Your task to perform on an android device: find which apps use the phone's location Image 0: 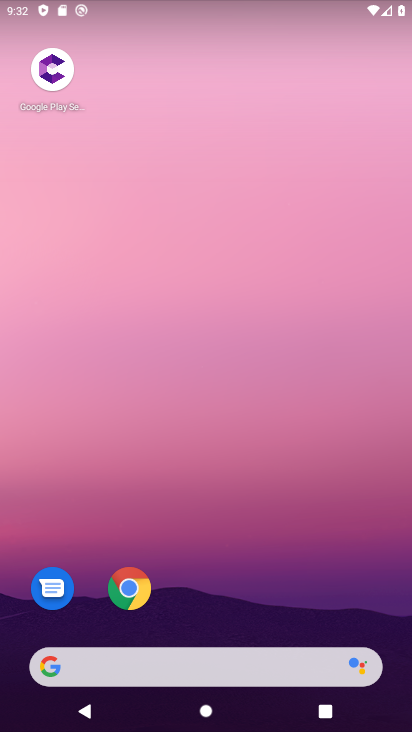
Step 0: drag from (291, 577) to (297, 125)
Your task to perform on an android device: find which apps use the phone's location Image 1: 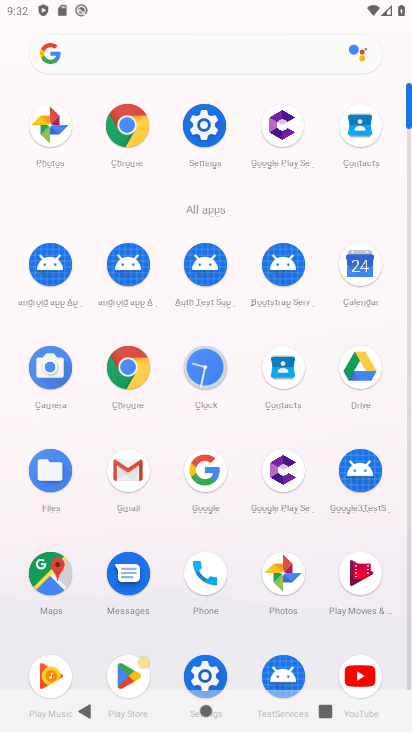
Step 1: click (200, 110)
Your task to perform on an android device: find which apps use the phone's location Image 2: 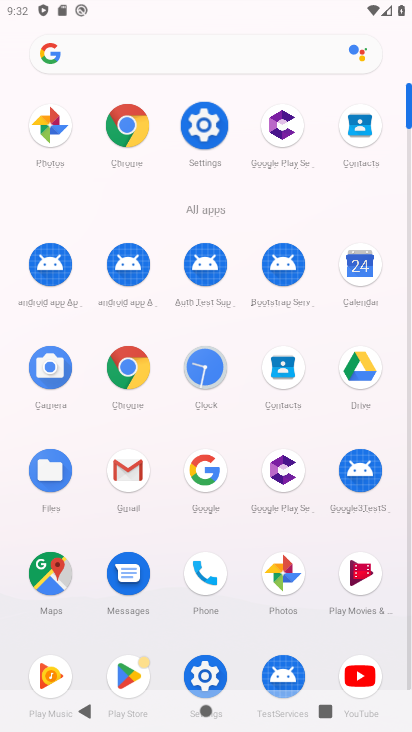
Step 2: click (201, 108)
Your task to perform on an android device: find which apps use the phone's location Image 3: 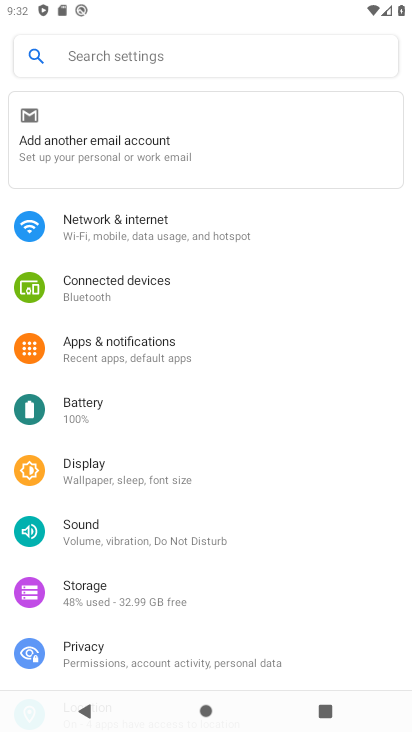
Step 3: click (207, 111)
Your task to perform on an android device: find which apps use the phone's location Image 4: 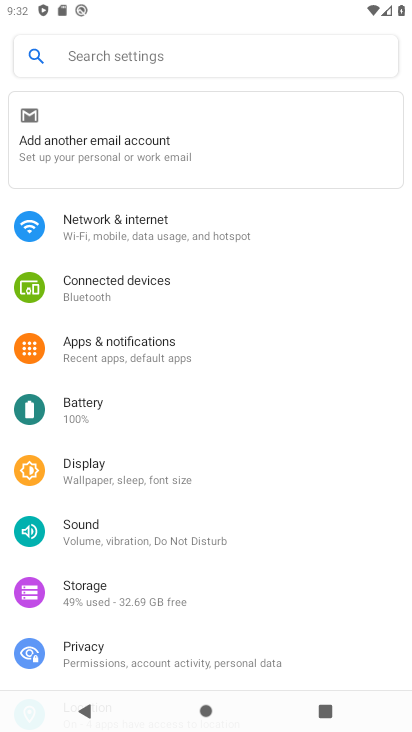
Step 4: drag from (127, 526) to (98, 221)
Your task to perform on an android device: find which apps use the phone's location Image 5: 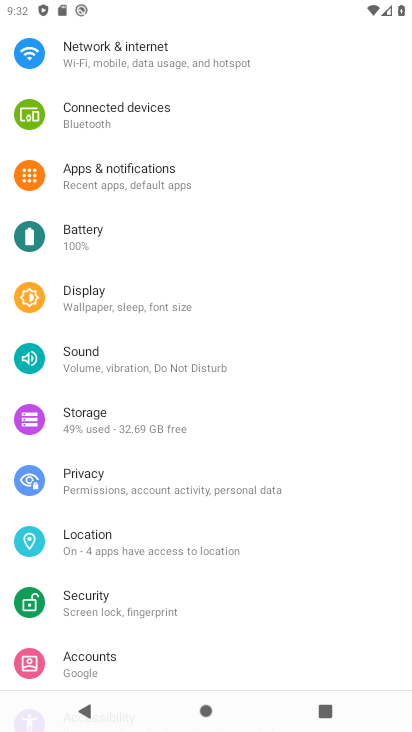
Step 5: drag from (157, 383) to (160, 310)
Your task to perform on an android device: find which apps use the phone's location Image 6: 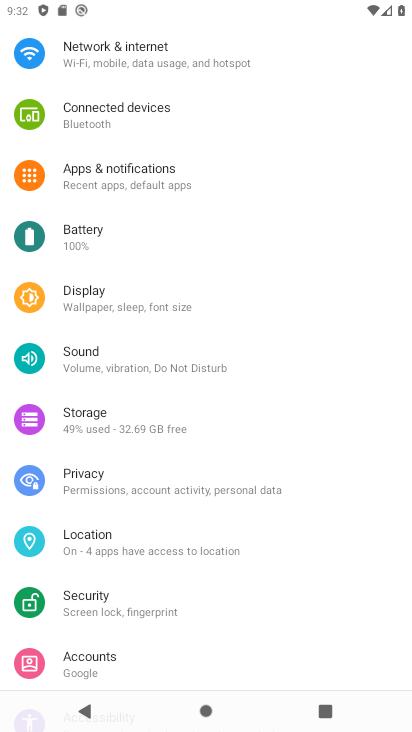
Step 6: click (115, 545)
Your task to perform on an android device: find which apps use the phone's location Image 7: 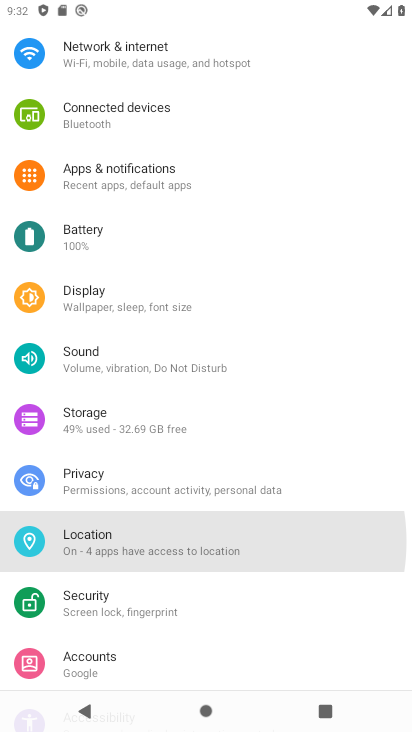
Step 7: click (115, 545)
Your task to perform on an android device: find which apps use the phone's location Image 8: 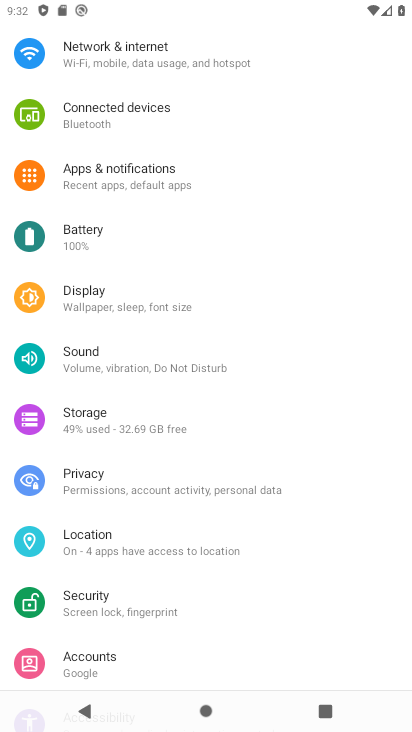
Step 8: click (120, 547)
Your task to perform on an android device: find which apps use the phone's location Image 9: 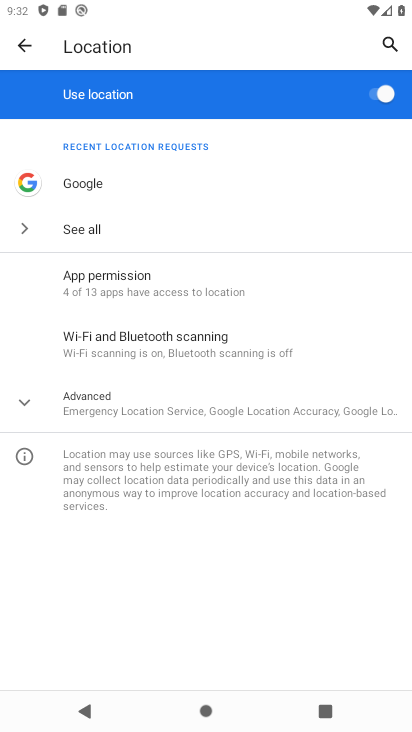
Step 9: click (129, 284)
Your task to perform on an android device: find which apps use the phone's location Image 10: 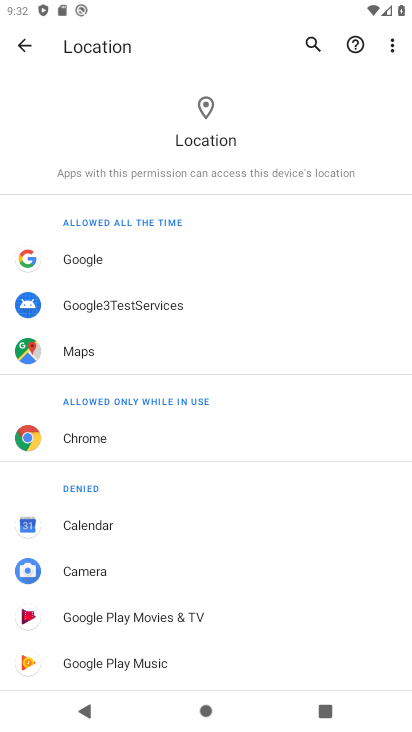
Step 10: task complete